Your task to perform on an android device: set an alarm Image 0: 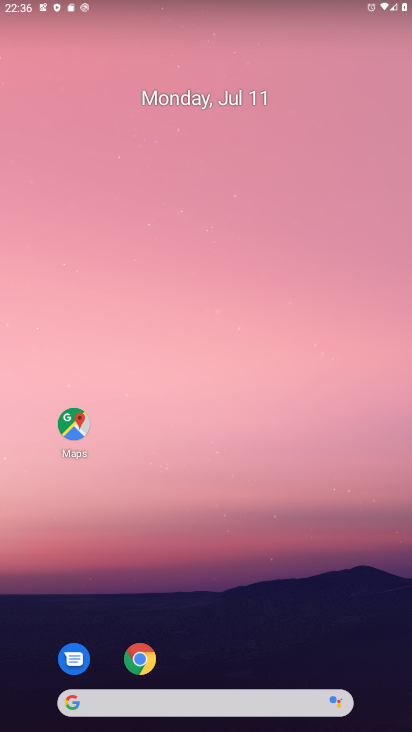
Step 0: drag from (248, 661) to (314, 388)
Your task to perform on an android device: set an alarm Image 1: 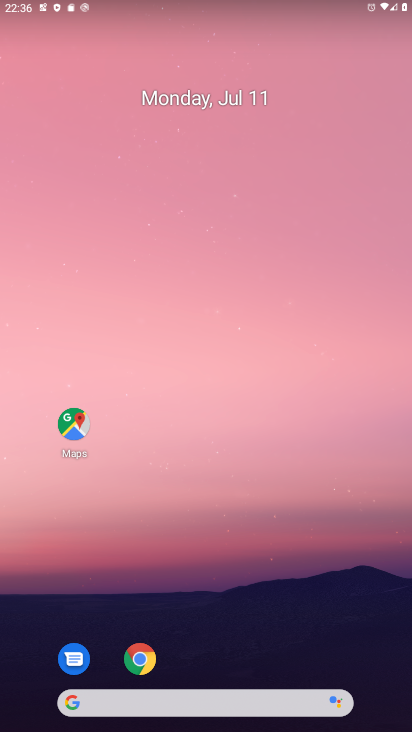
Step 1: drag from (198, 653) to (190, 46)
Your task to perform on an android device: set an alarm Image 2: 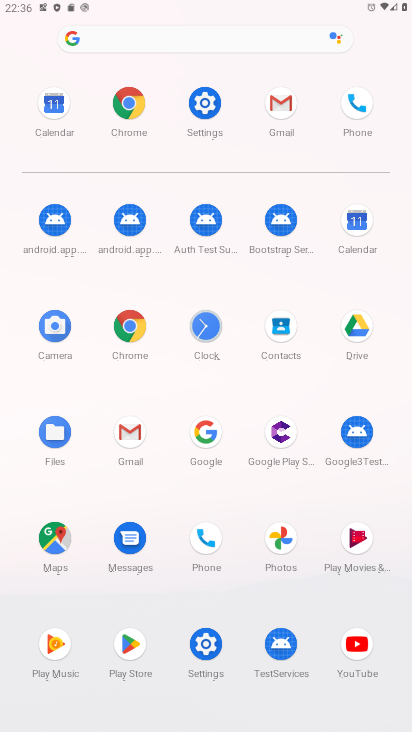
Step 2: click (191, 317)
Your task to perform on an android device: set an alarm Image 3: 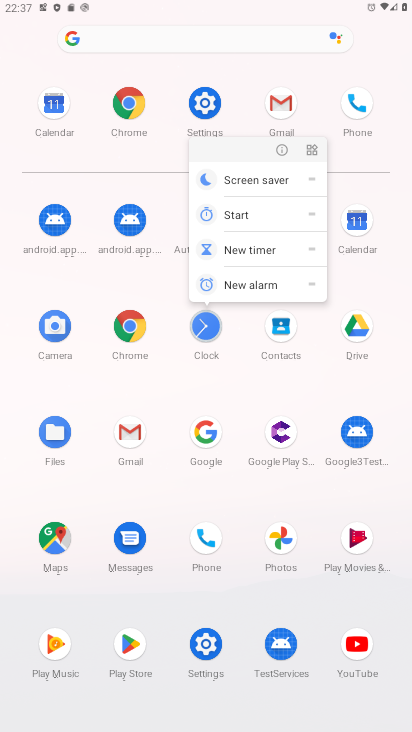
Step 3: click (271, 137)
Your task to perform on an android device: set an alarm Image 4: 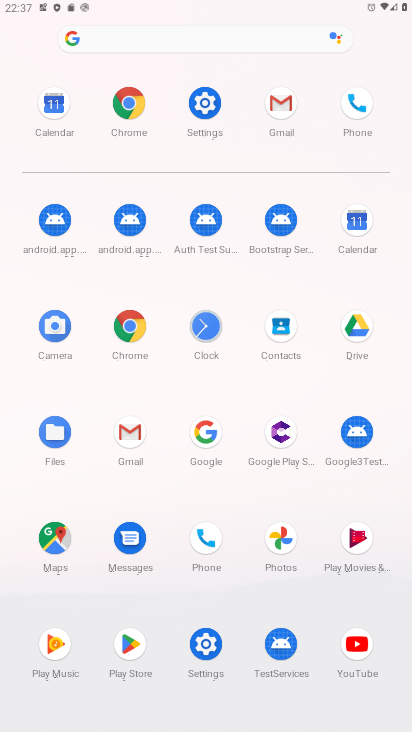
Step 4: click (276, 145)
Your task to perform on an android device: set an alarm Image 5: 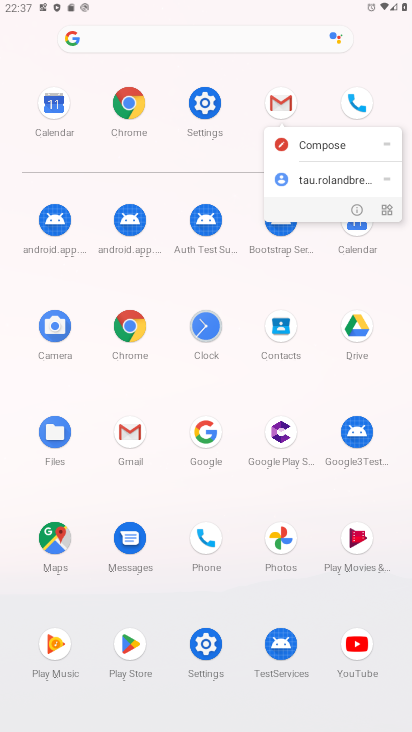
Step 5: click (354, 211)
Your task to perform on an android device: set an alarm Image 6: 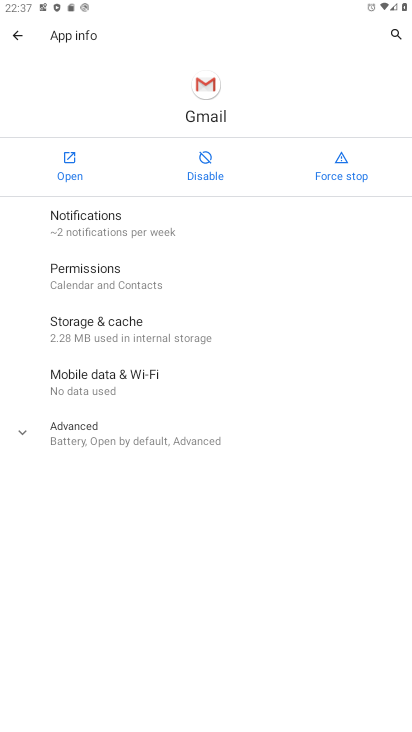
Step 6: click (69, 162)
Your task to perform on an android device: set an alarm Image 7: 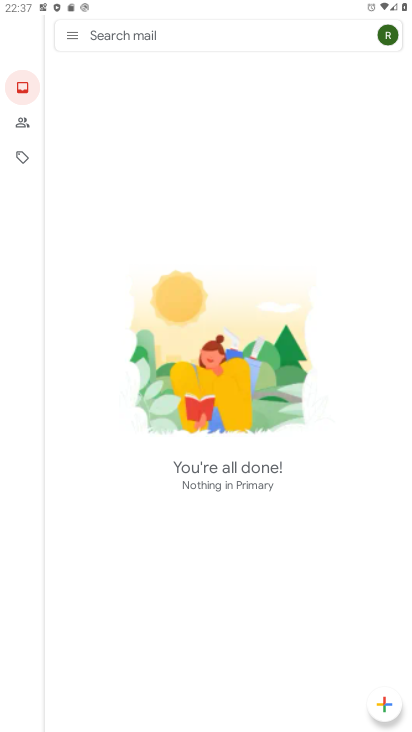
Step 7: click (152, 501)
Your task to perform on an android device: set an alarm Image 8: 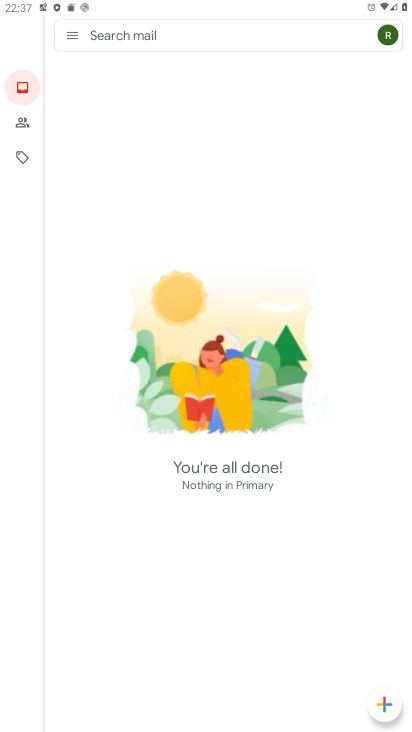
Step 8: press home button
Your task to perform on an android device: set an alarm Image 9: 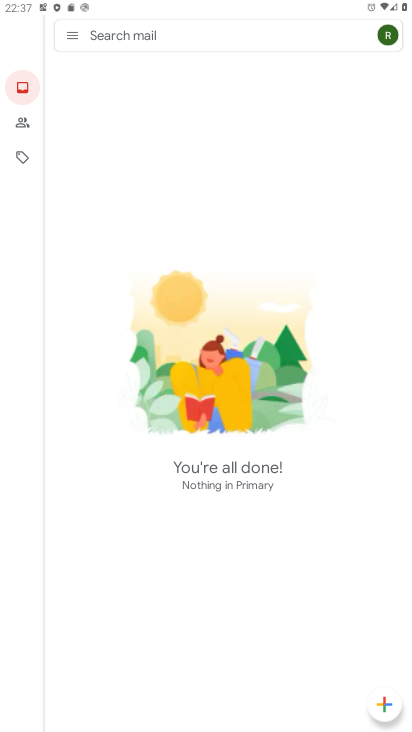
Step 9: drag from (239, 493) to (300, 58)
Your task to perform on an android device: set an alarm Image 10: 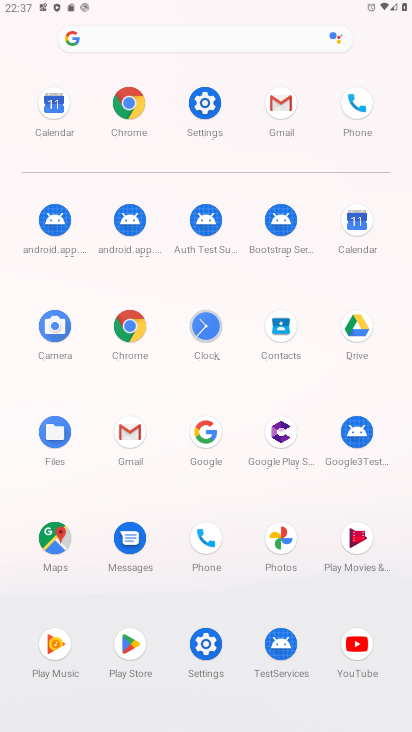
Step 10: click (214, 326)
Your task to perform on an android device: set an alarm Image 11: 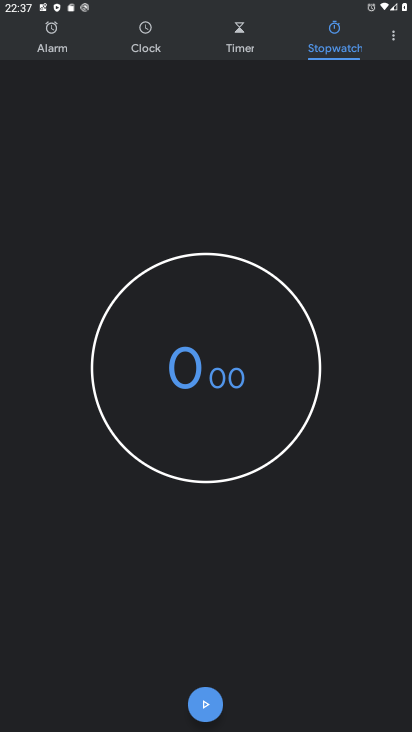
Step 11: drag from (115, 599) to (193, 282)
Your task to perform on an android device: set an alarm Image 12: 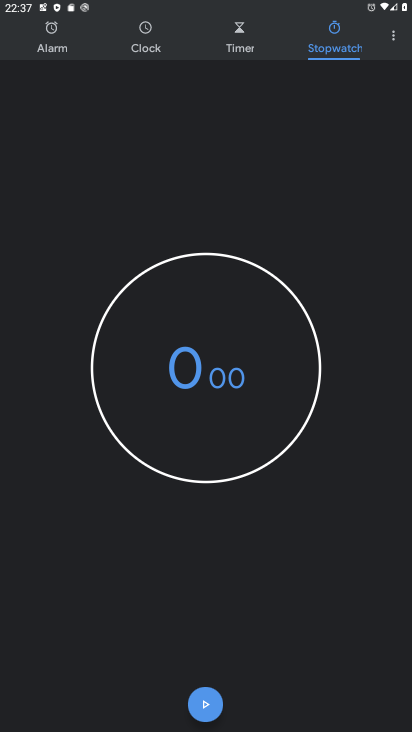
Step 12: click (58, 38)
Your task to perform on an android device: set an alarm Image 13: 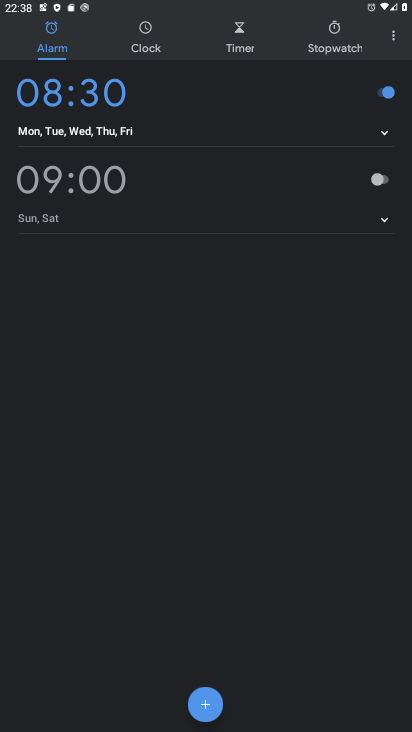
Step 13: click (372, 174)
Your task to perform on an android device: set an alarm Image 14: 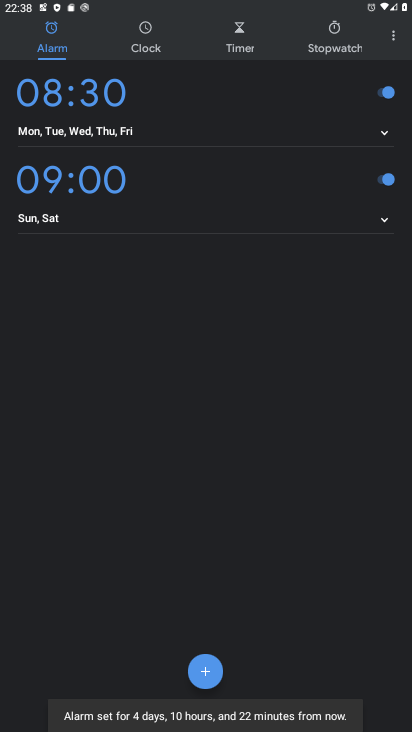
Step 14: task complete